Your task to perform on an android device: toggle translation in the chrome app Image 0: 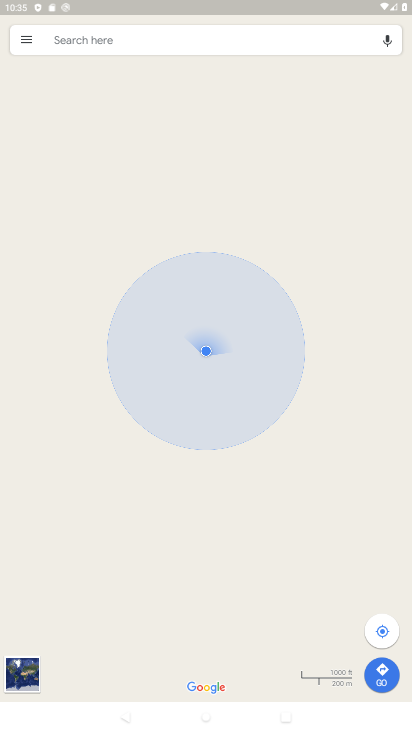
Step 0: press back button
Your task to perform on an android device: toggle translation in the chrome app Image 1: 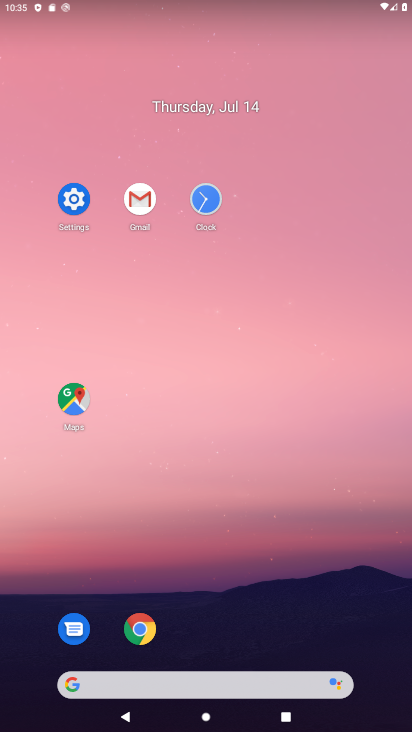
Step 1: click (146, 638)
Your task to perform on an android device: toggle translation in the chrome app Image 2: 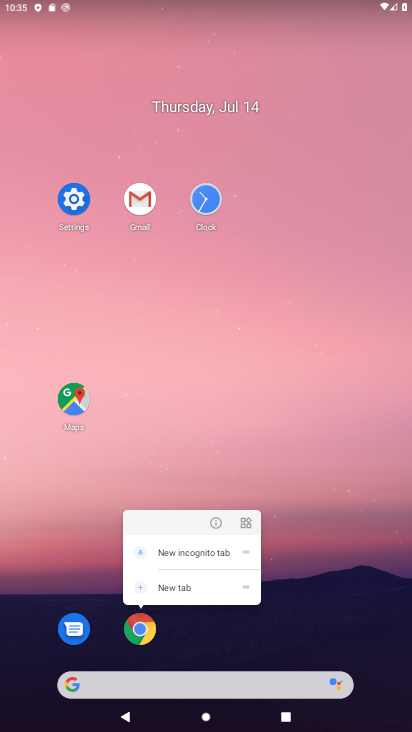
Step 2: click (135, 632)
Your task to perform on an android device: toggle translation in the chrome app Image 3: 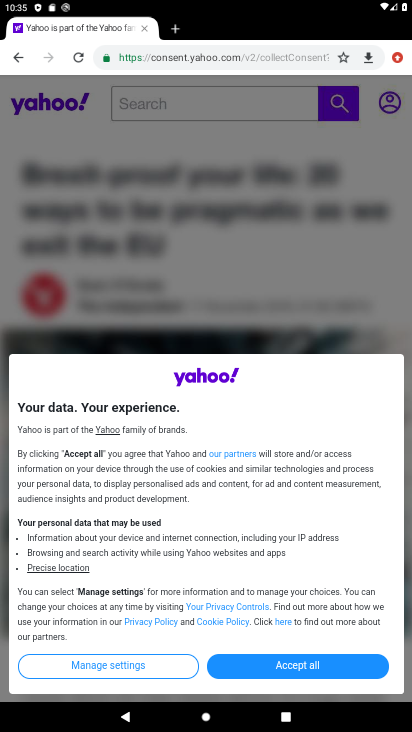
Step 3: click (395, 61)
Your task to perform on an android device: toggle translation in the chrome app Image 4: 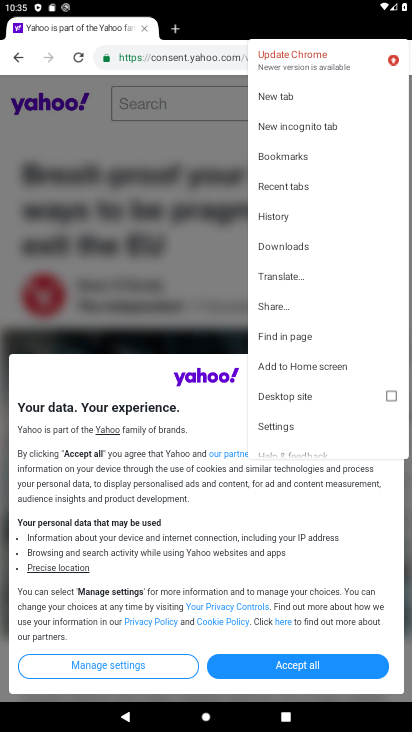
Step 4: click (300, 422)
Your task to perform on an android device: toggle translation in the chrome app Image 5: 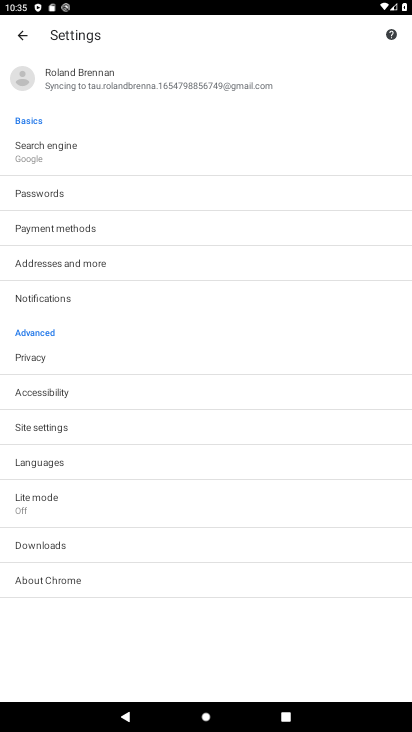
Step 5: click (166, 466)
Your task to perform on an android device: toggle translation in the chrome app Image 6: 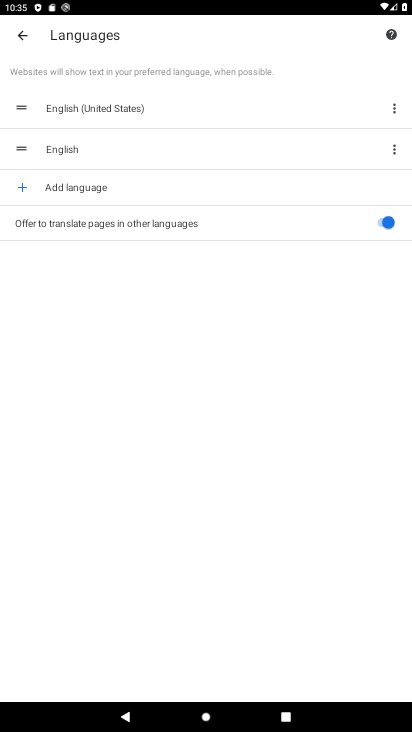
Step 6: click (389, 227)
Your task to perform on an android device: toggle translation in the chrome app Image 7: 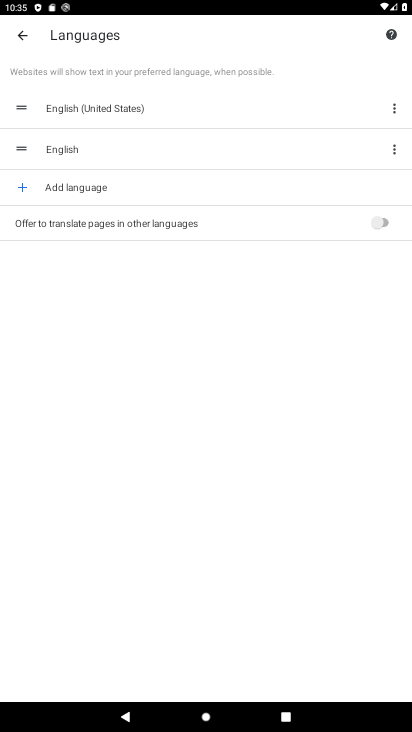
Step 7: task complete